Your task to perform on an android device: Find coffee shops on Maps Image 0: 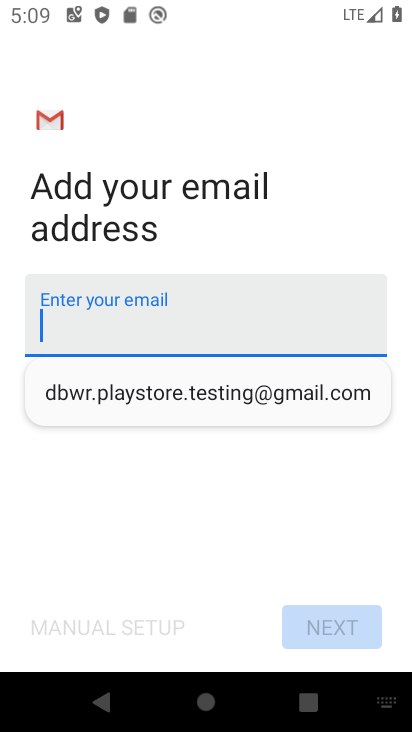
Step 0: press home button
Your task to perform on an android device: Find coffee shops on Maps Image 1: 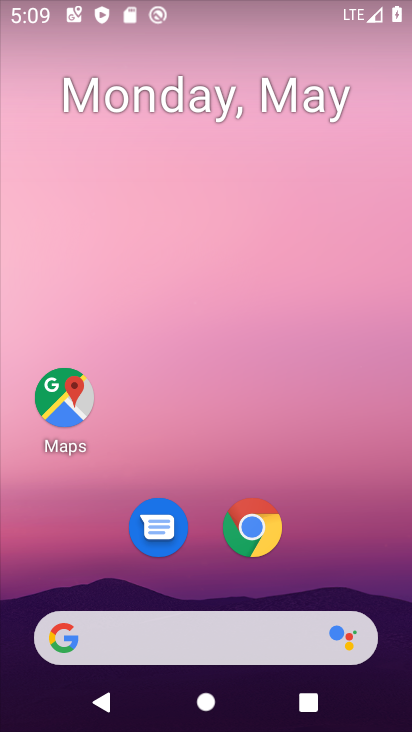
Step 1: click (66, 407)
Your task to perform on an android device: Find coffee shops on Maps Image 2: 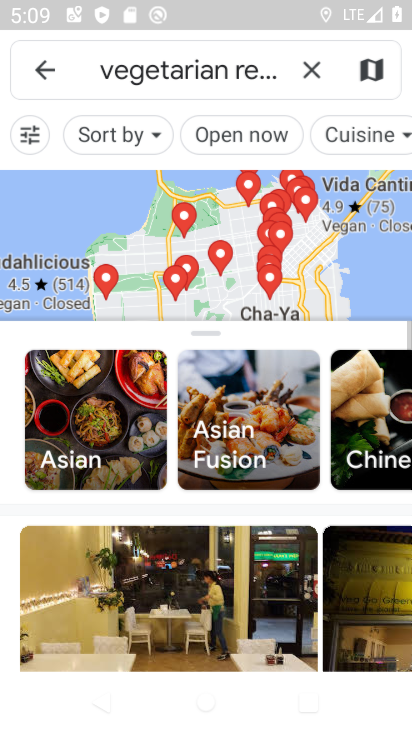
Step 2: click (308, 65)
Your task to perform on an android device: Find coffee shops on Maps Image 3: 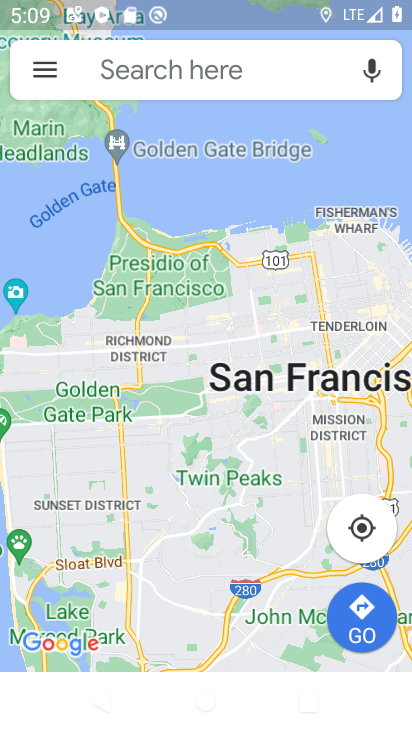
Step 3: click (194, 63)
Your task to perform on an android device: Find coffee shops on Maps Image 4: 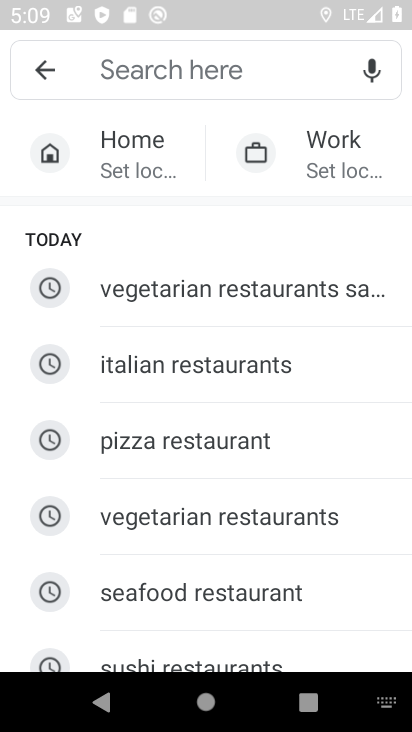
Step 4: type "coffee shops"
Your task to perform on an android device: Find coffee shops on Maps Image 5: 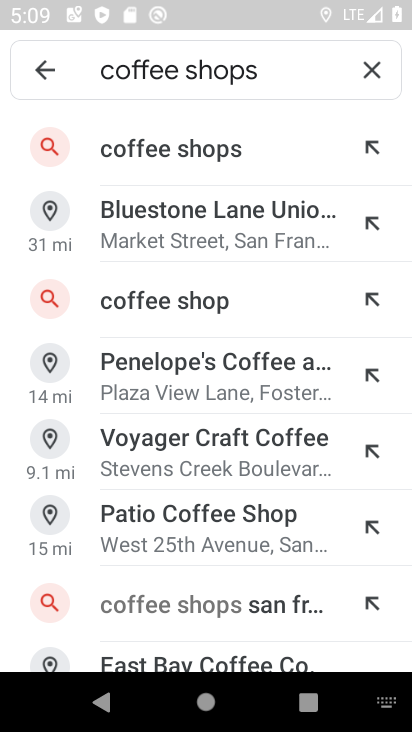
Step 5: click (113, 154)
Your task to perform on an android device: Find coffee shops on Maps Image 6: 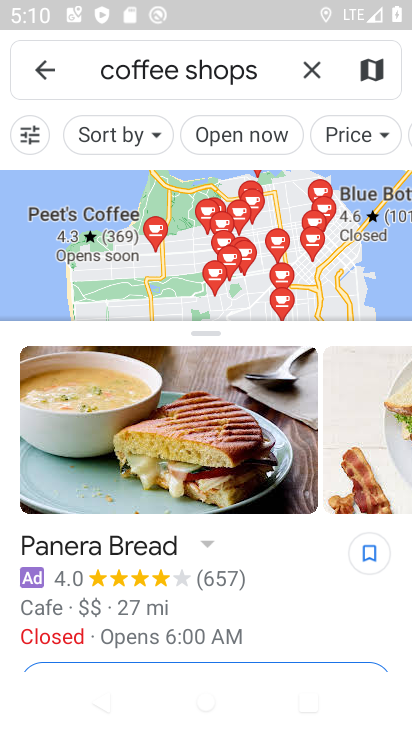
Step 6: task complete